Your task to perform on an android device: clear history in the chrome app Image 0: 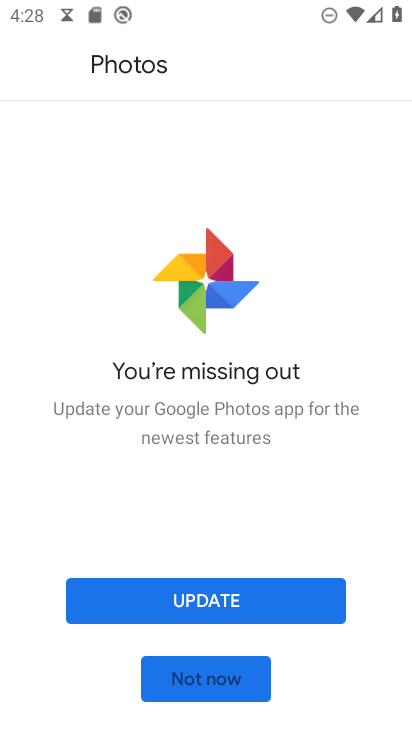
Step 0: press home button
Your task to perform on an android device: clear history in the chrome app Image 1: 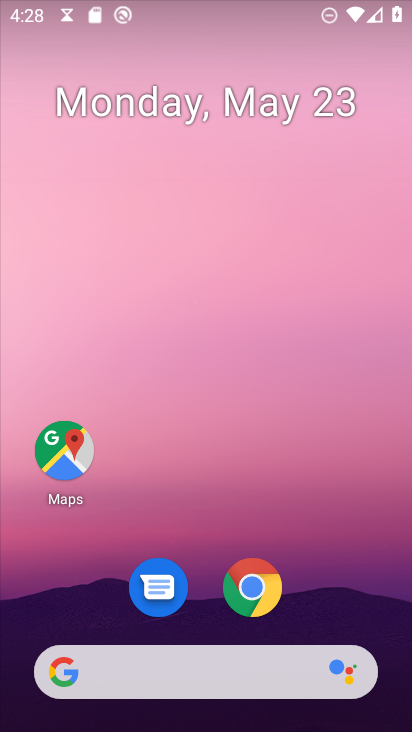
Step 1: drag from (229, 613) to (334, 7)
Your task to perform on an android device: clear history in the chrome app Image 2: 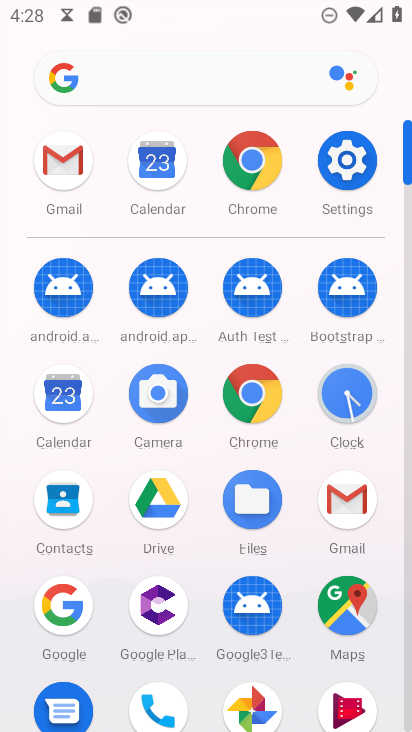
Step 2: click (249, 403)
Your task to perform on an android device: clear history in the chrome app Image 3: 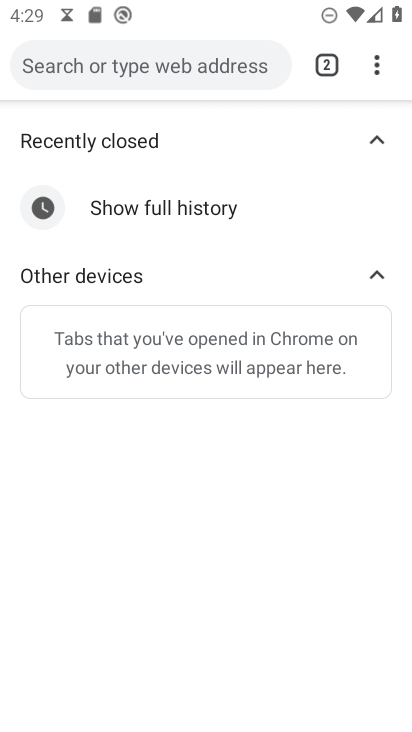
Step 3: click (204, 209)
Your task to perform on an android device: clear history in the chrome app Image 4: 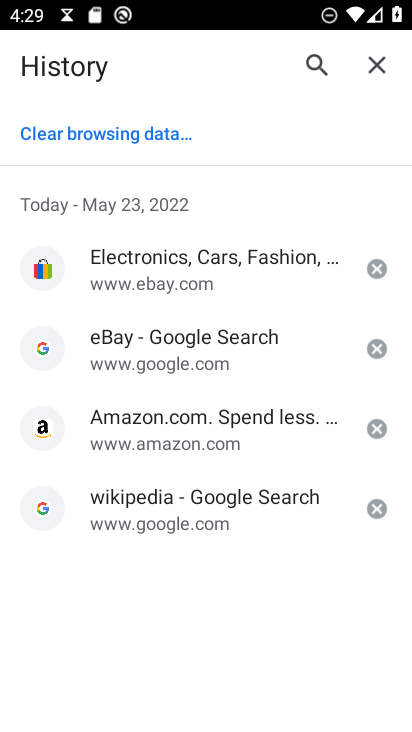
Step 4: click (124, 134)
Your task to perform on an android device: clear history in the chrome app Image 5: 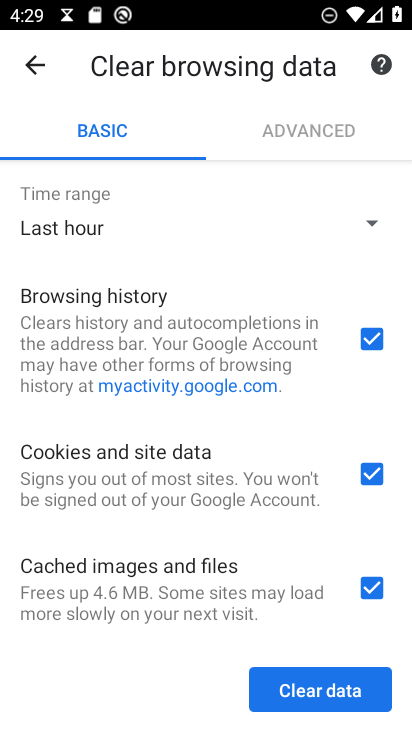
Step 5: click (296, 694)
Your task to perform on an android device: clear history in the chrome app Image 6: 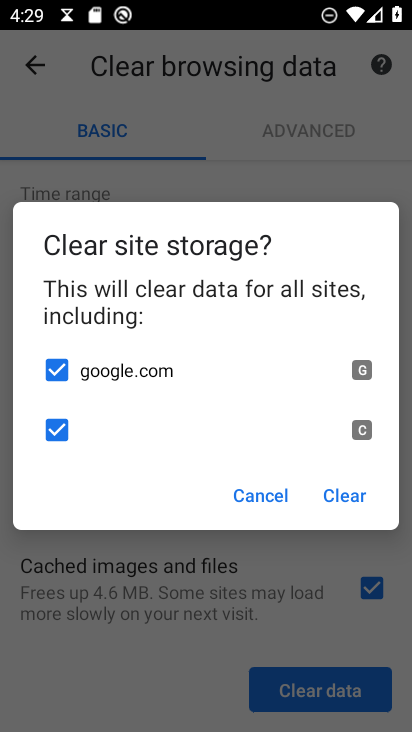
Step 6: click (360, 490)
Your task to perform on an android device: clear history in the chrome app Image 7: 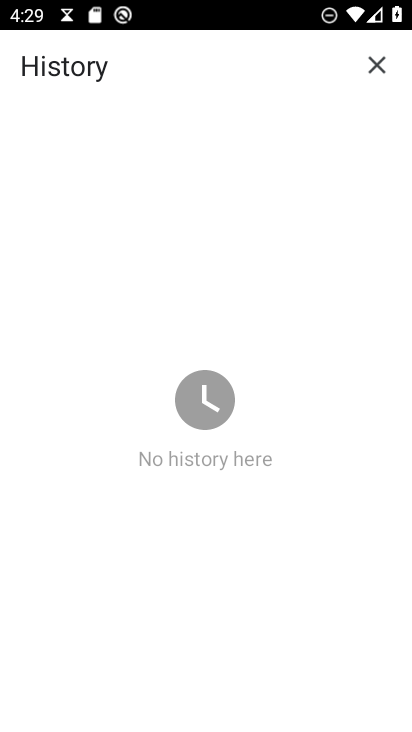
Step 7: task complete